Your task to perform on an android device: set the stopwatch Image 0: 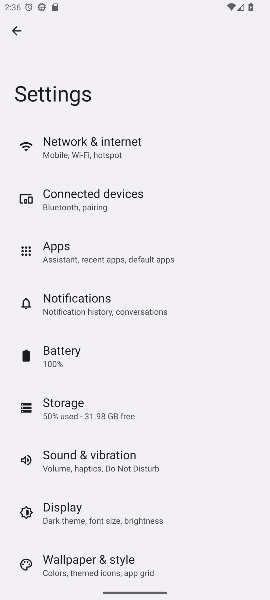
Step 0: press home button
Your task to perform on an android device: set the stopwatch Image 1: 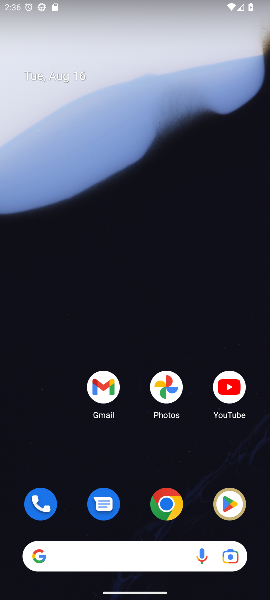
Step 1: drag from (122, 506) to (122, 75)
Your task to perform on an android device: set the stopwatch Image 2: 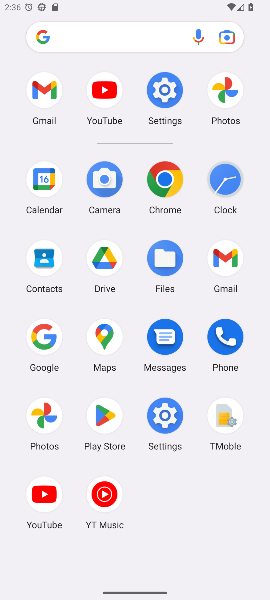
Step 2: click (219, 182)
Your task to perform on an android device: set the stopwatch Image 3: 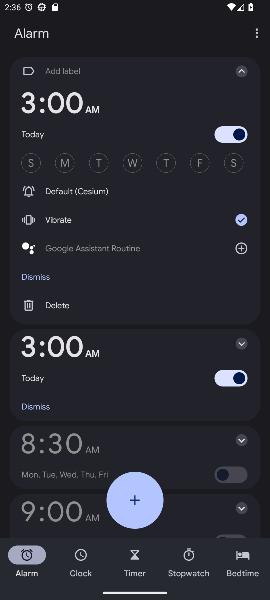
Step 3: click (190, 554)
Your task to perform on an android device: set the stopwatch Image 4: 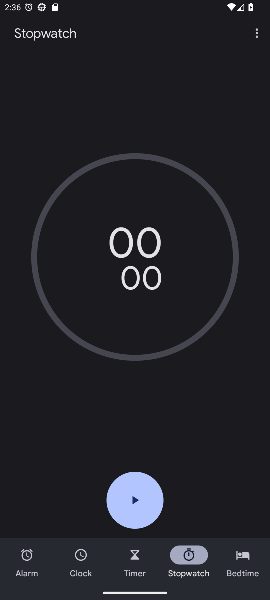
Step 4: task complete